Your task to perform on an android device: turn on location history Image 0: 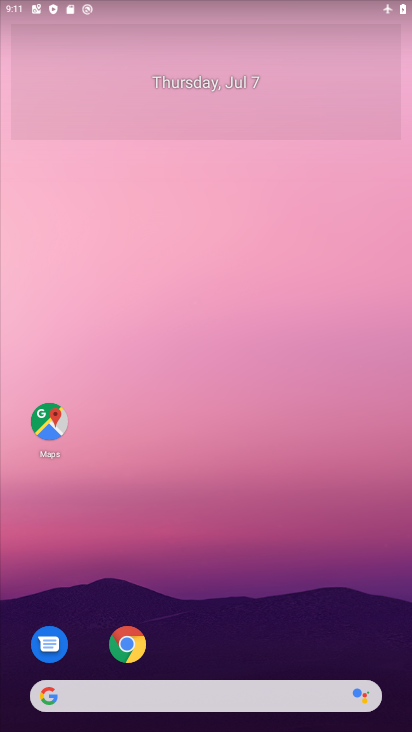
Step 0: drag from (285, 592) to (173, 22)
Your task to perform on an android device: turn on location history Image 1: 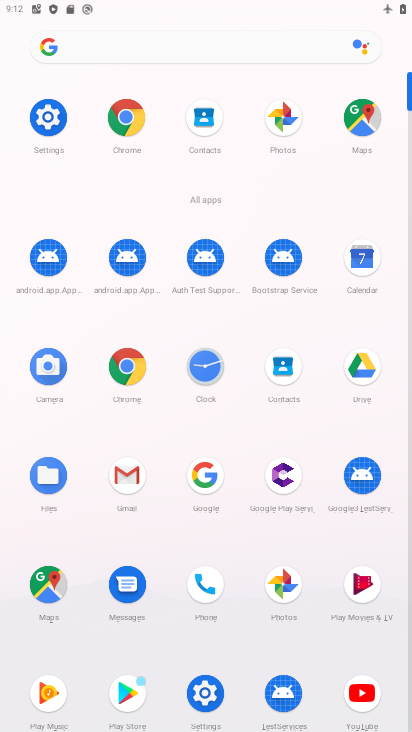
Step 1: click (51, 111)
Your task to perform on an android device: turn on location history Image 2: 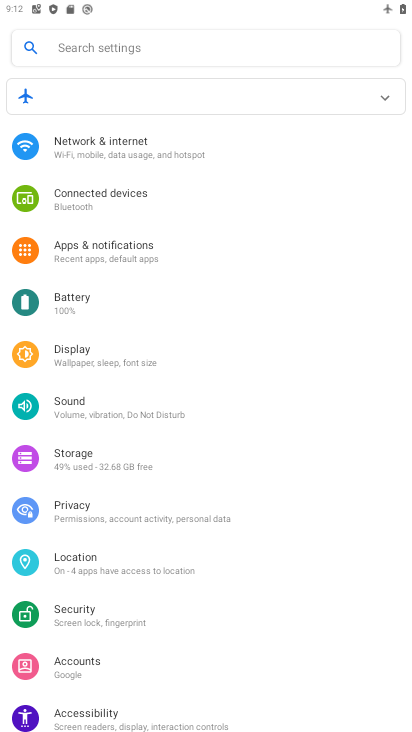
Step 2: click (84, 556)
Your task to perform on an android device: turn on location history Image 3: 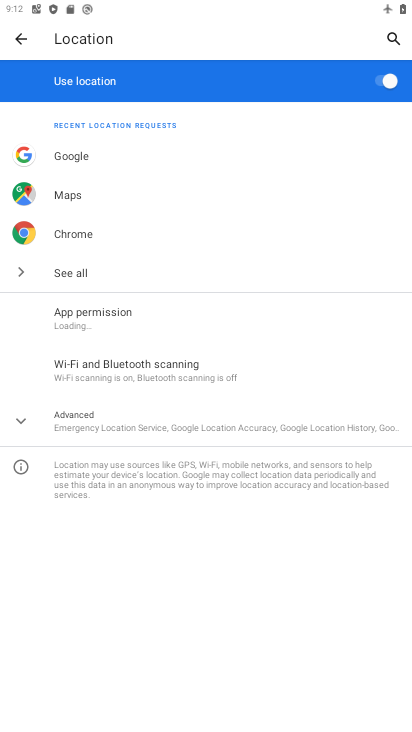
Step 3: click (101, 437)
Your task to perform on an android device: turn on location history Image 4: 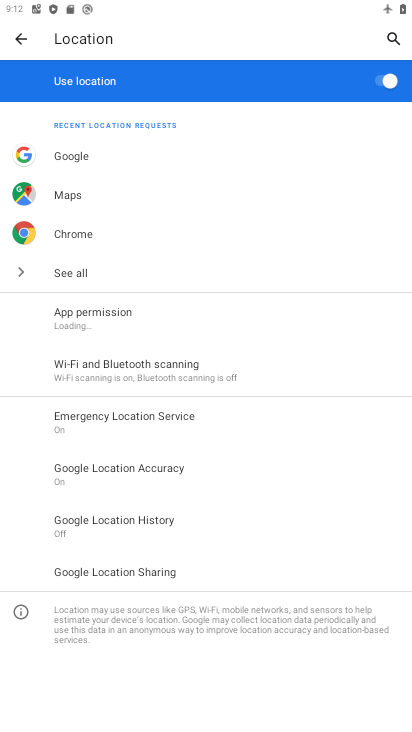
Step 4: click (94, 529)
Your task to perform on an android device: turn on location history Image 5: 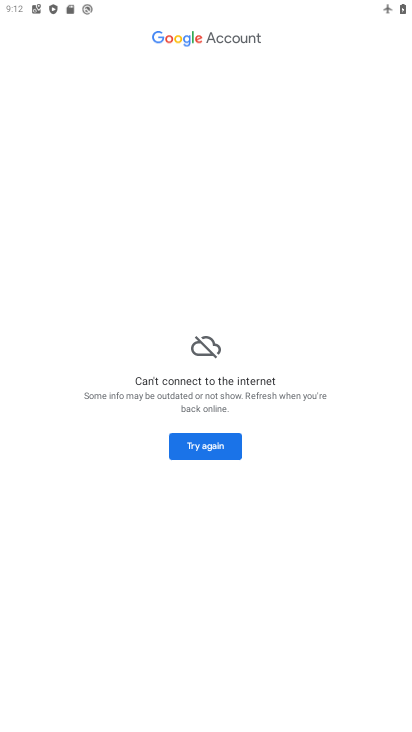
Step 5: task complete